Your task to perform on an android device: When is my next appointment? Image 0: 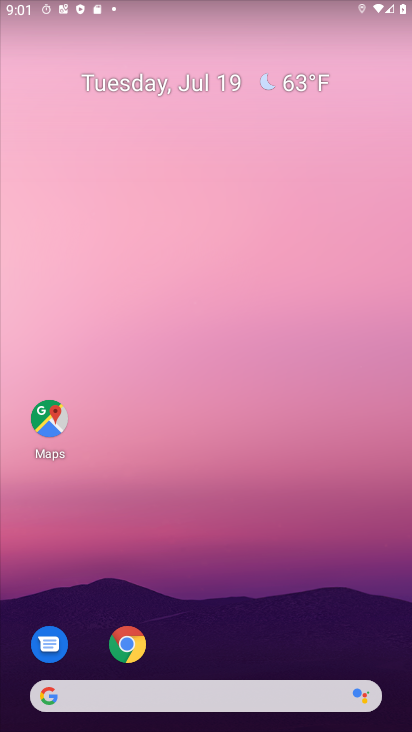
Step 0: drag from (255, 547) to (159, 269)
Your task to perform on an android device: When is my next appointment? Image 1: 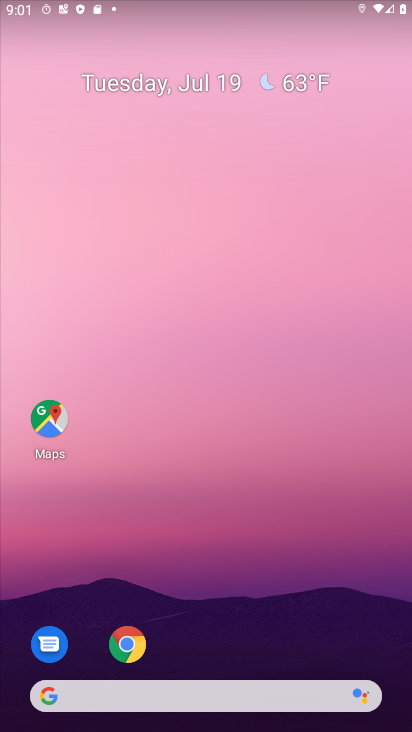
Step 1: drag from (218, 565) to (218, 265)
Your task to perform on an android device: When is my next appointment? Image 2: 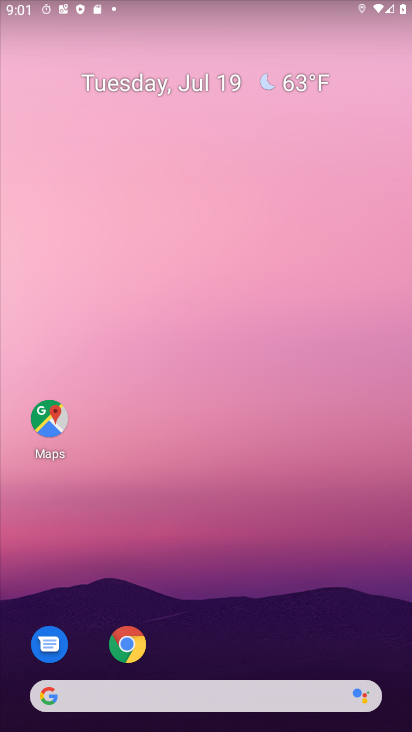
Step 2: drag from (260, 598) to (250, 228)
Your task to perform on an android device: When is my next appointment? Image 3: 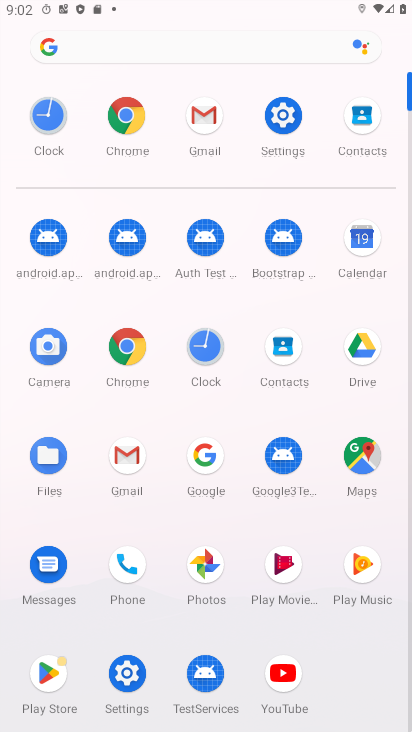
Step 3: click (360, 238)
Your task to perform on an android device: When is my next appointment? Image 4: 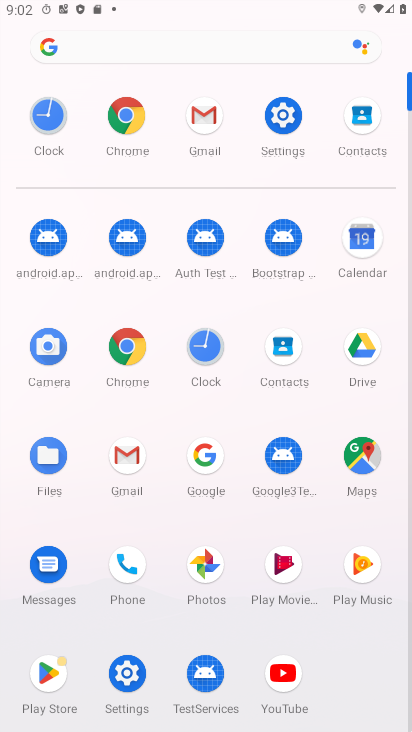
Step 4: click (360, 238)
Your task to perform on an android device: When is my next appointment? Image 5: 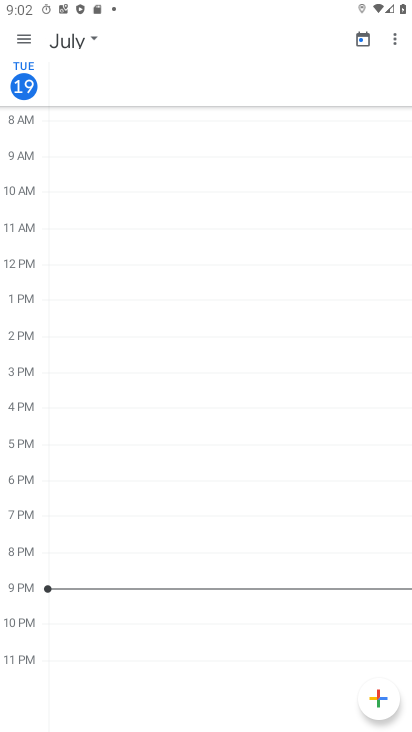
Step 5: click (93, 27)
Your task to perform on an android device: When is my next appointment? Image 6: 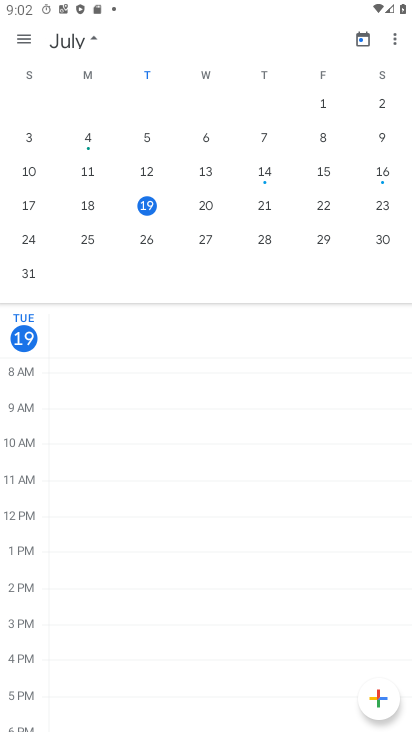
Step 6: click (203, 202)
Your task to perform on an android device: When is my next appointment? Image 7: 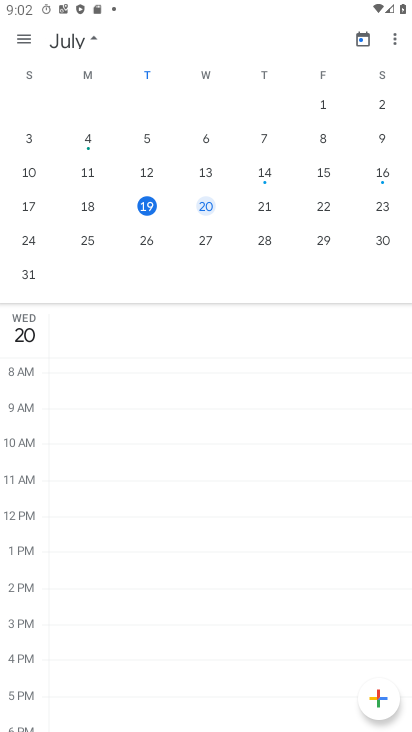
Step 7: task complete